Your task to perform on an android device: snooze an email in the gmail app Image 0: 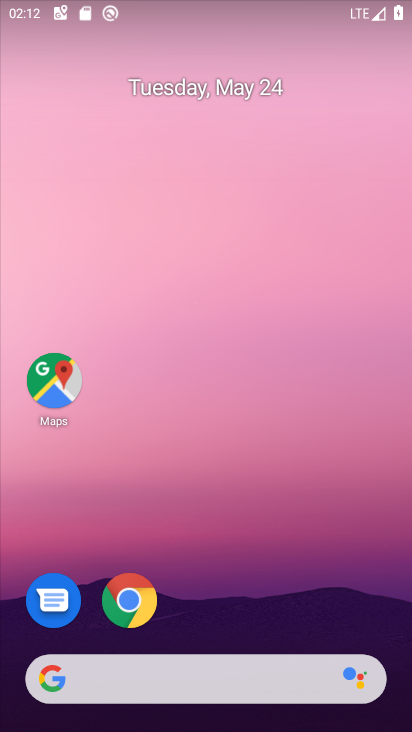
Step 0: drag from (260, 574) to (261, 349)
Your task to perform on an android device: snooze an email in the gmail app Image 1: 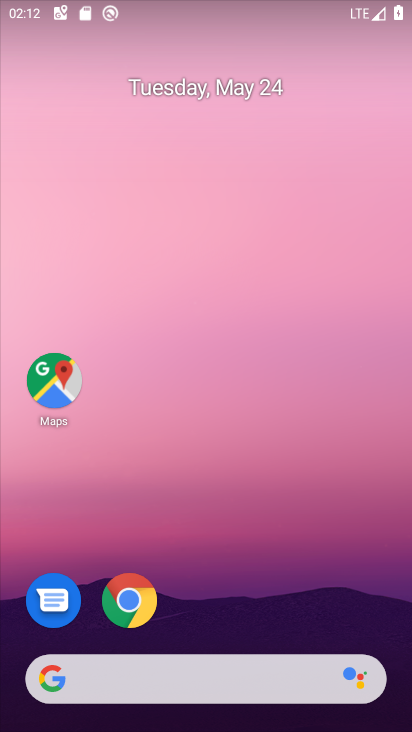
Step 1: drag from (189, 565) to (143, 276)
Your task to perform on an android device: snooze an email in the gmail app Image 2: 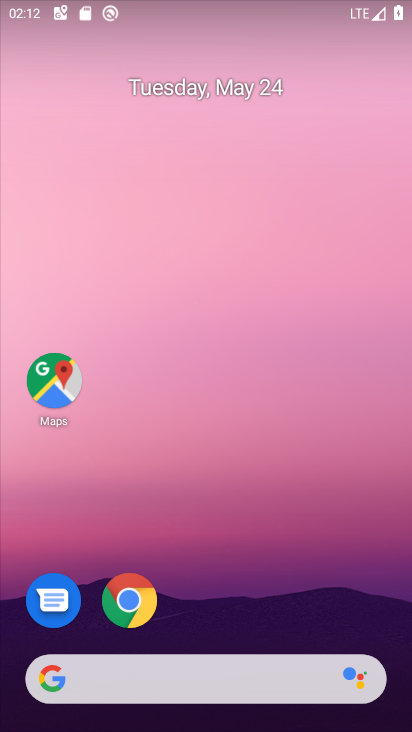
Step 2: drag from (185, 560) to (101, 148)
Your task to perform on an android device: snooze an email in the gmail app Image 3: 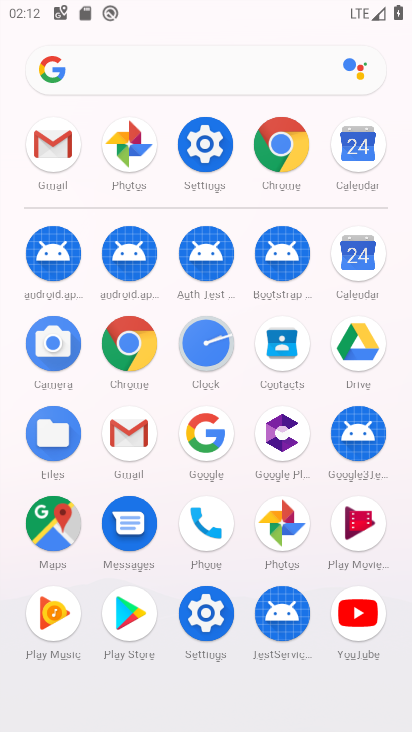
Step 3: click (115, 428)
Your task to perform on an android device: snooze an email in the gmail app Image 4: 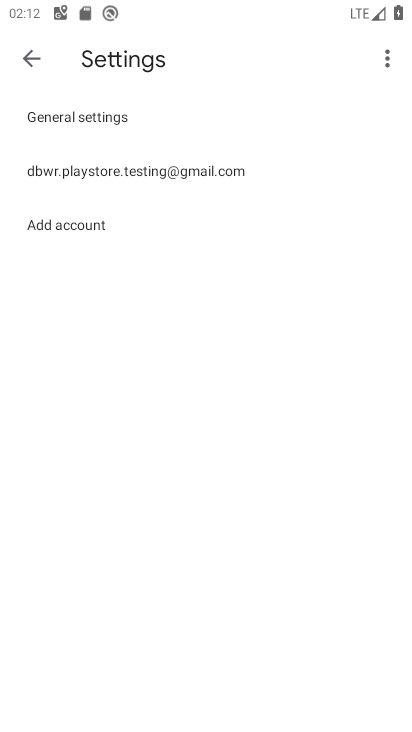
Step 4: press back button
Your task to perform on an android device: snooze an email in the gmail app Image 5: 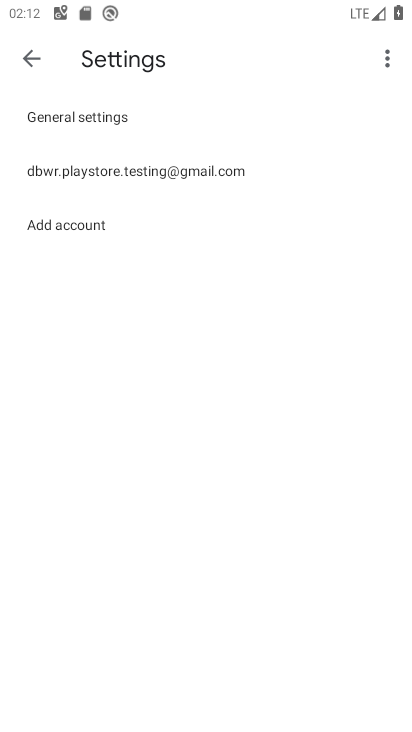
Step 5: click (396, 70)
Your task to perform on an android device: snooze an email in the gmail app Image 6: 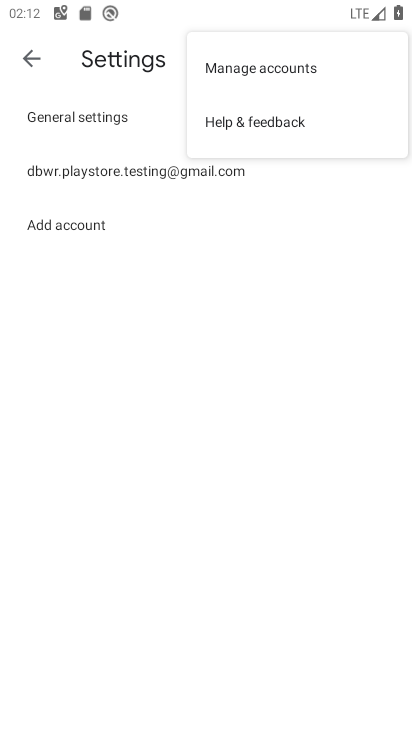
Step 6: press back button
Your task to perform on an android device: snooze an email in the gmail app Image 7: 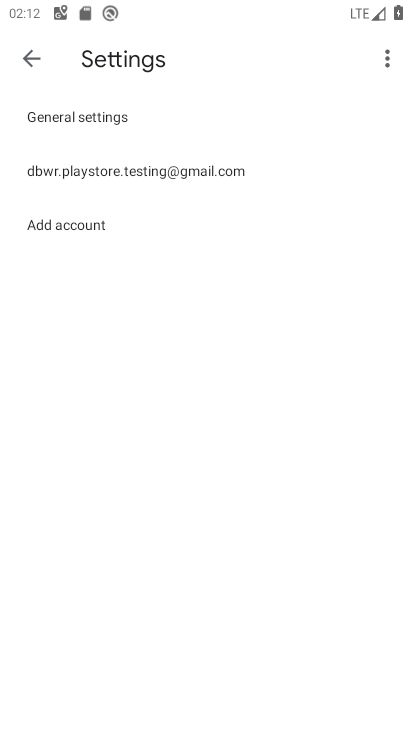
Step 7: press back button
Your task to perform on an android device: snooze an email in the gmail app Image 8: 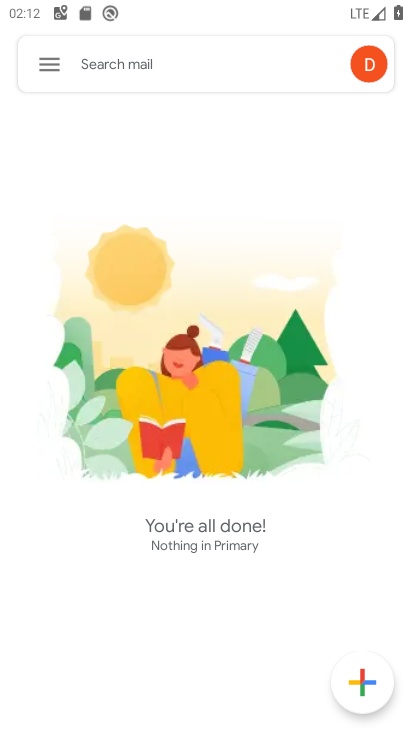
Step 8: click (37, 44)
Your task to perform on an android device: snooze an email in the gmail app Image 9: 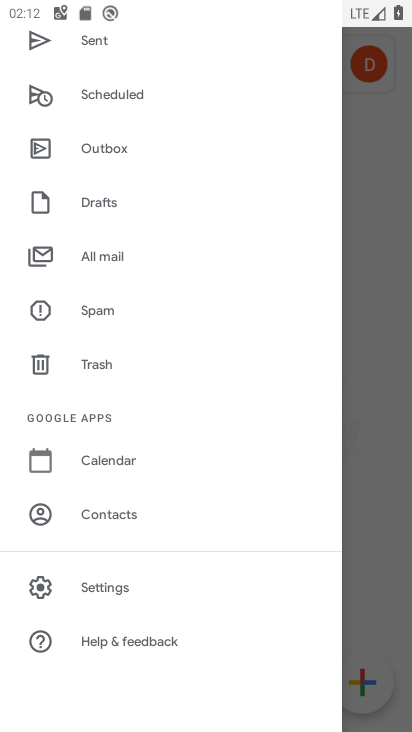
Step 9: drag from (185, 278) to (182, 657)
Your task to perform on an android device: snooze an email in the gmail app Image 10: 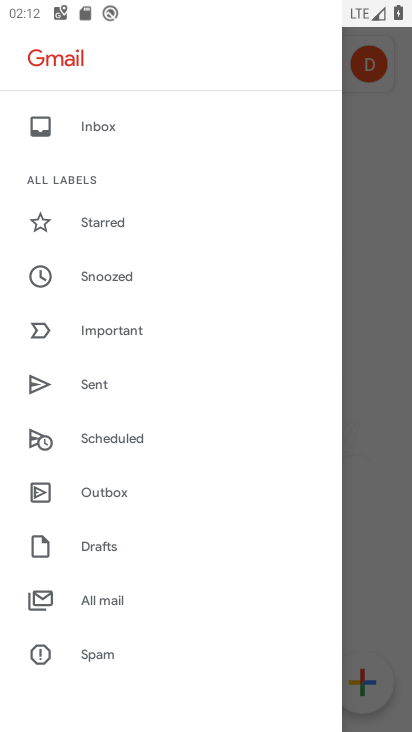
Step 10: click (109, 269)
Your task to perform on an android device: snooze an email in the gmail app Image 11: 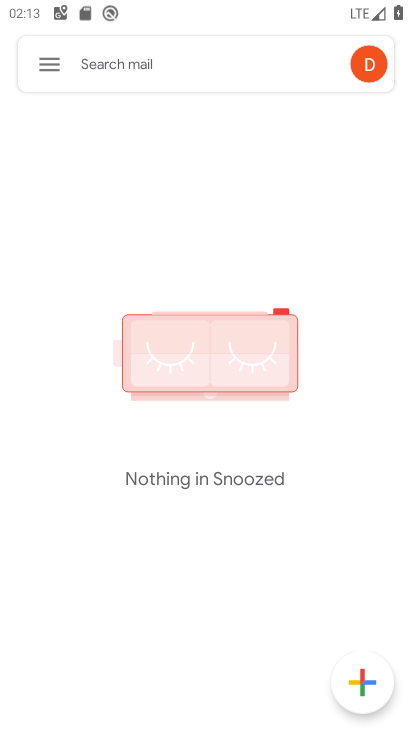
Step 11: task complete